Your task to perform on an android device: Do I have any events today? Image 0: 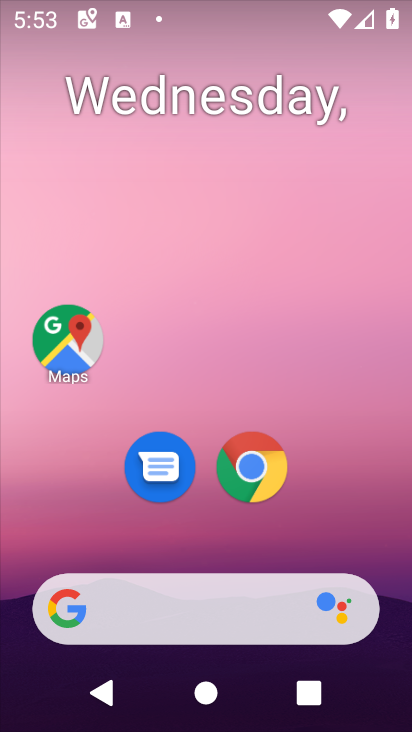
Step 0: click (255, 49)
Your task to perform on an android device: Do I have any events today? Image 1: 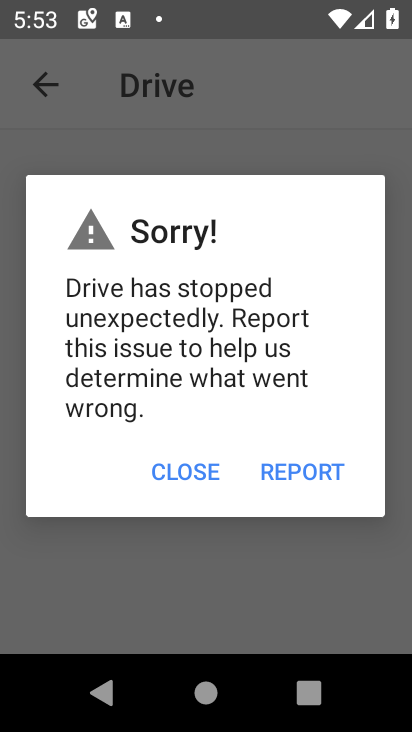
Step 1: press home button
Your task to perform on an android device: Do I have any events today? Image 2: 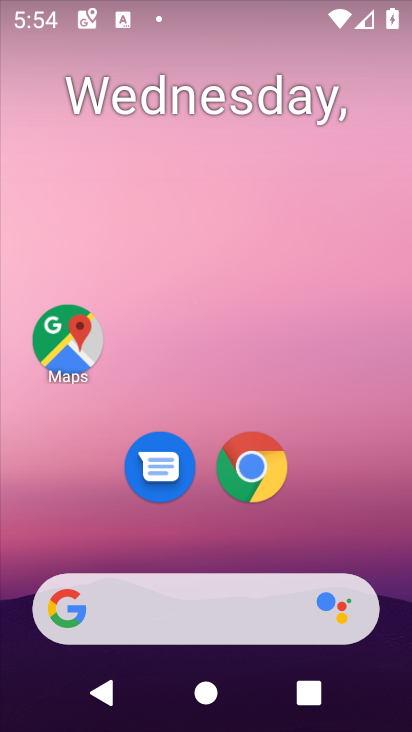
Step 2: drag from (304, 539) to (222, 9)
Your task to perform on an android device: Do I have any events today? Image 3: 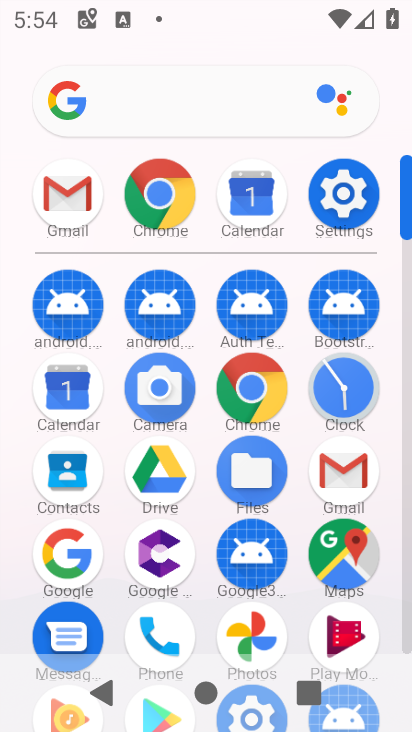
Step 3: click (60, 397)
Your task to perform on an android device: Do I have any events today? Image 4: 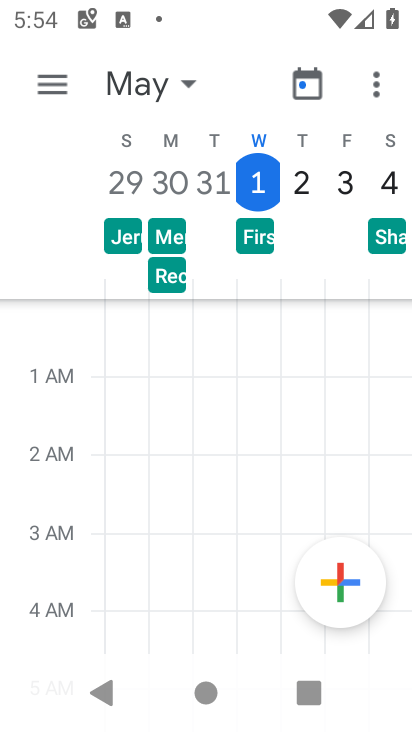
Step 4: task complete